Your task to perform on an android device: Open Chrome and go to settings Image 0: 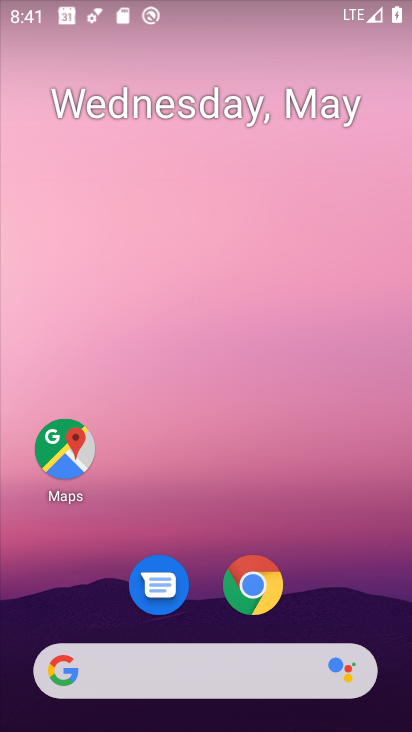
Step 0: click (273, 577)
Your task to perform on an android device: Open Chrome and go to settings Image 1: 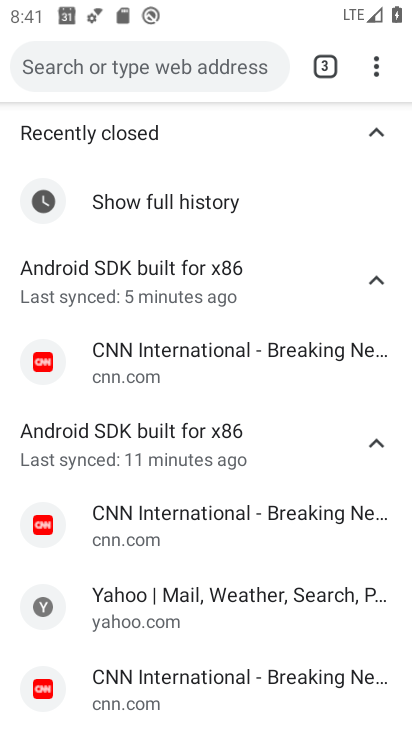
Step 1: click (371, 68)
Your task to perform on an android device: Open Chrome and go to settings Image 2: 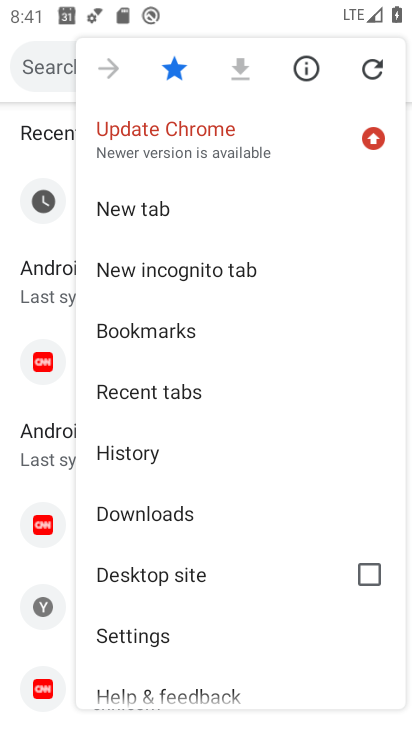
Step 2: click (230, 638)
Your task to perform on an android device: Open Chrome and go to settings Image 3: 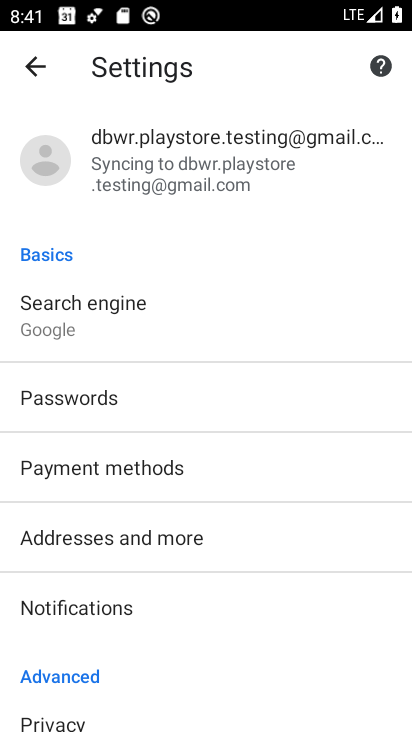
Step 3: task complete